Your task to perform on an android device: Turn off the flashlight Image 0: 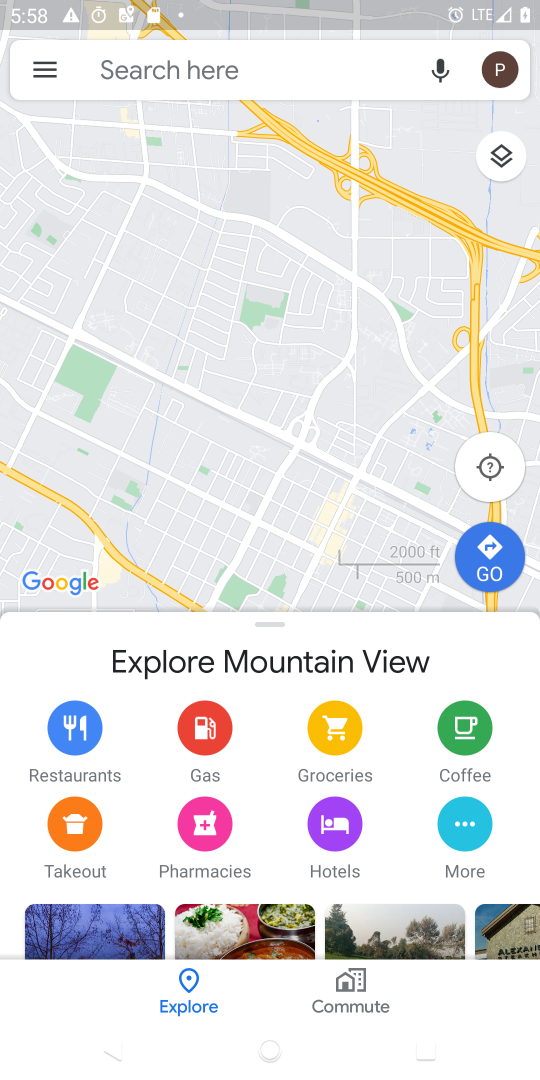
Step 0: press back button
Your task to perform on an android device: Turn off the flashlight Image 1: 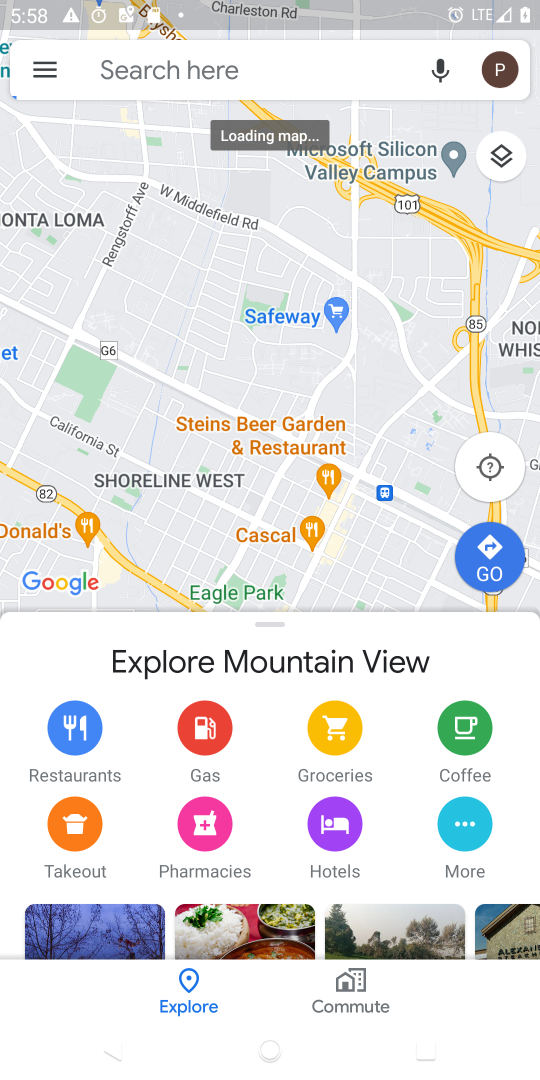
Step 1: press back button
Your task to perform on an android device: Turn off the flashlight Image 2: 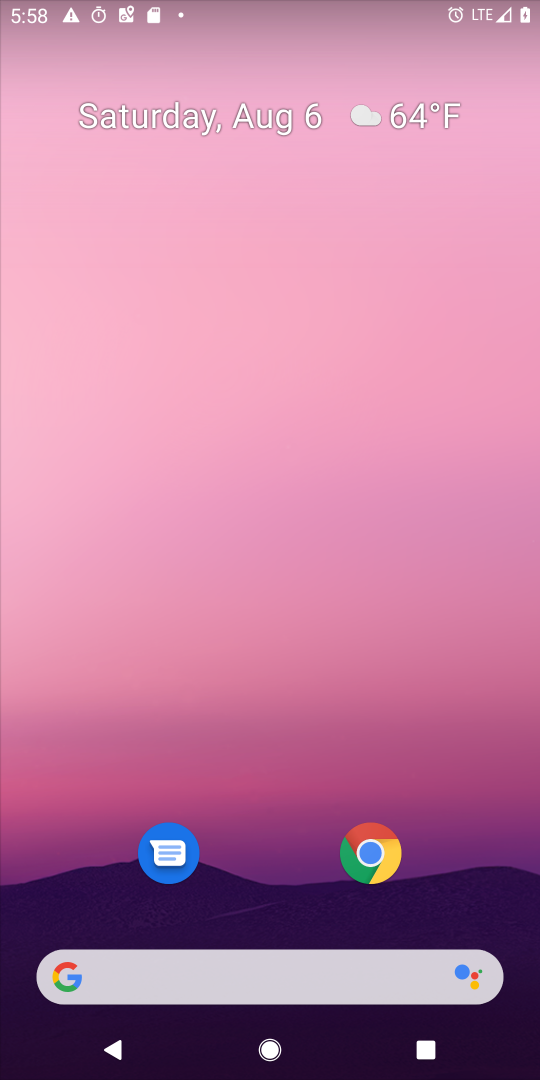
Step 2: drag from (280, 832) to (462, 18)
Your task to perform on an android device: Turn off the flashlight Image 3: 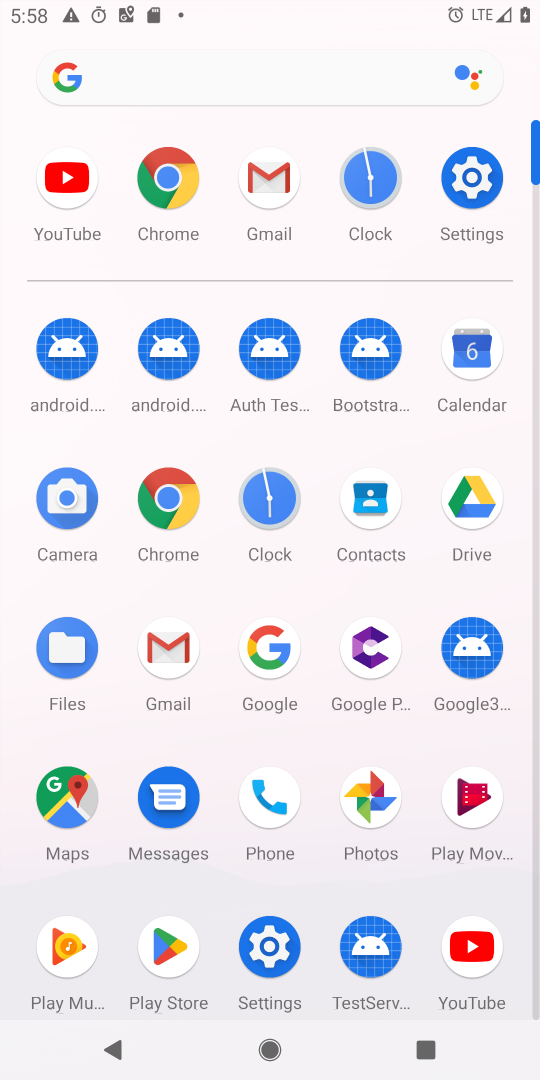
Step 3: click (464, 184)
Your task to perform on an android device: Turn off the flashlight Image 4: 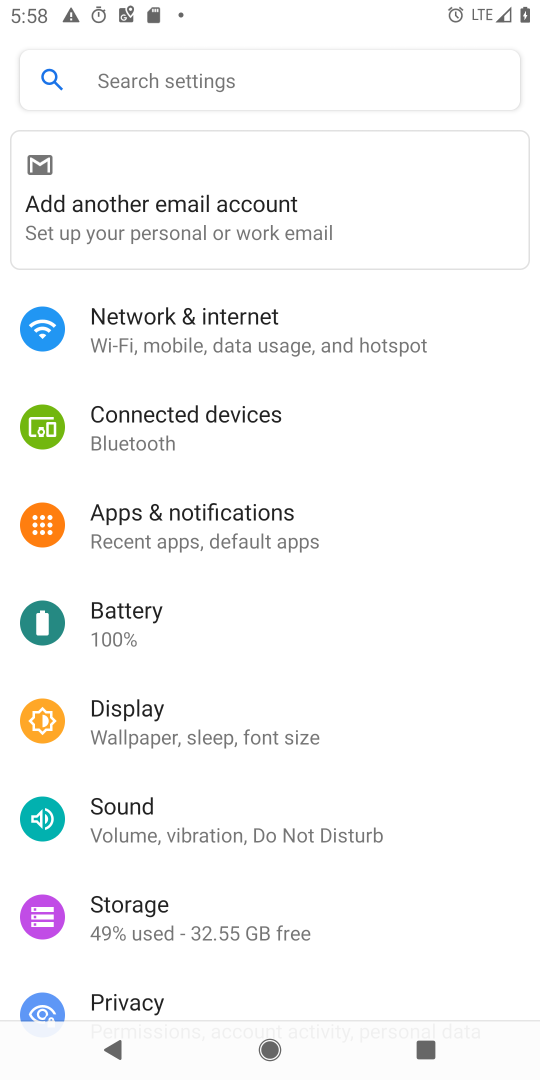
Step 4: click (184, 80)
Your task to perform on an android device: Turn off the flashlight Image 5: 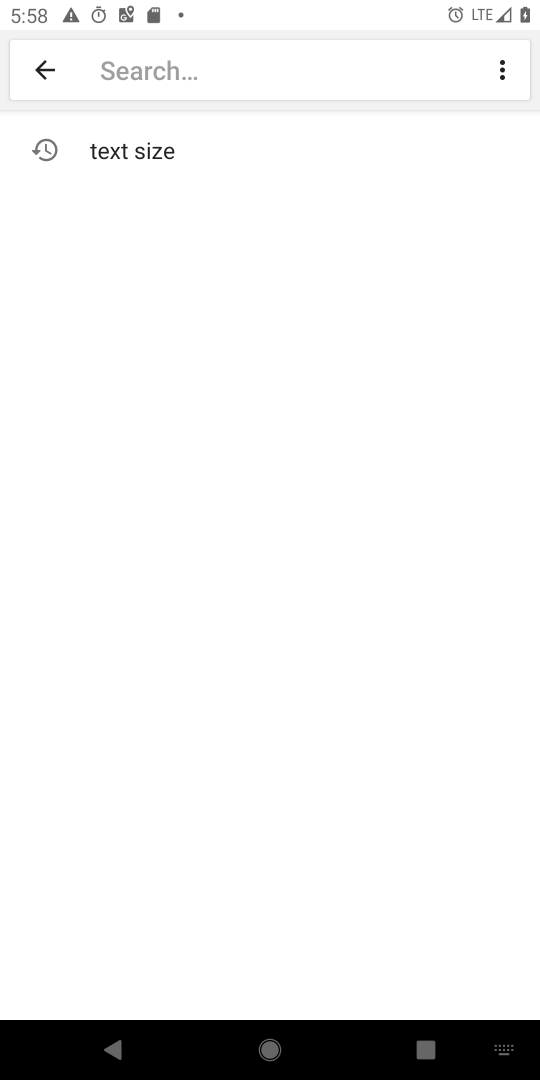
Step 5: type "flashlight"
Your task to perform on an android device: Turn off the flashlight Image 6: 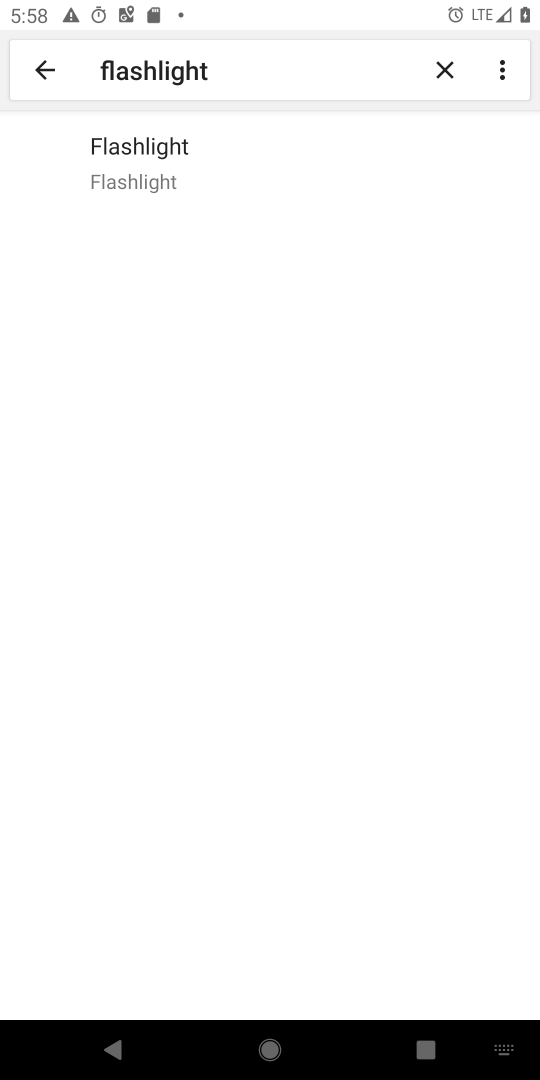
Step 6: click (168, 152)
Your task to perform on an android device: Turn off the flashlight Image 7: 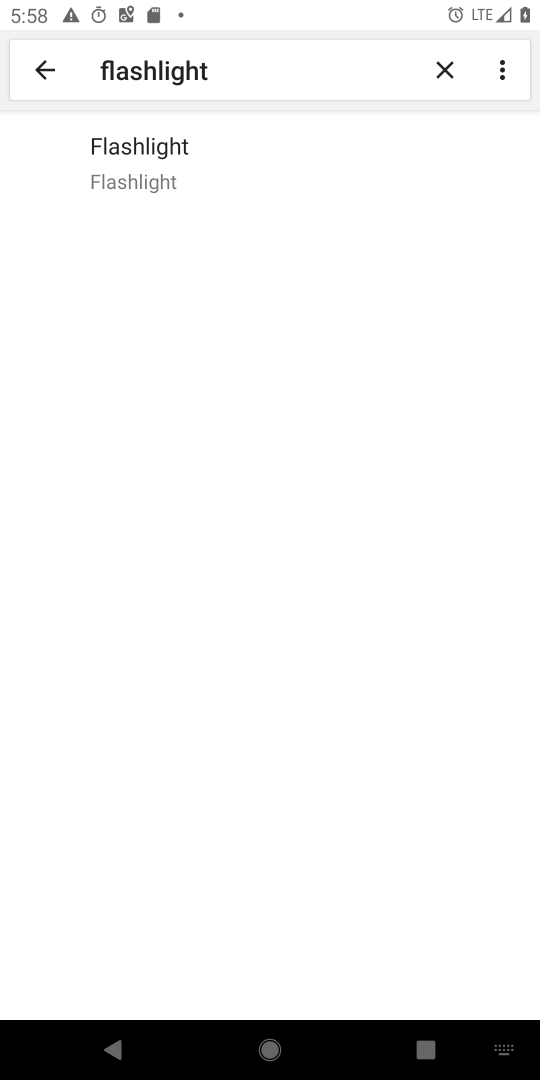
Step 7: task complete